Your task to perform on an android device: Go to settings Image 0: 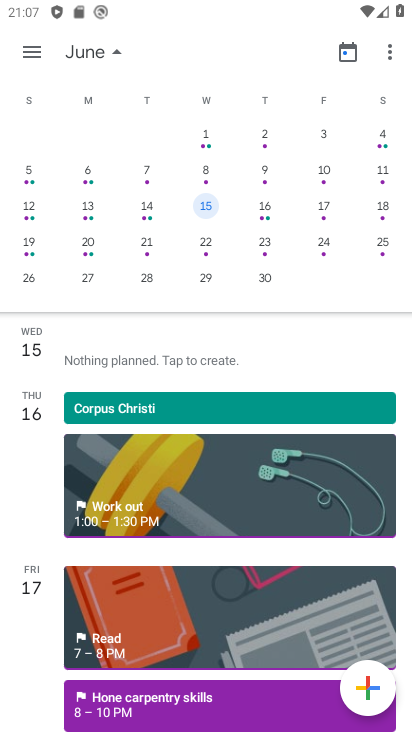
Step 0: press home button
Your task to perform on an android device: Go to settings Image 1: 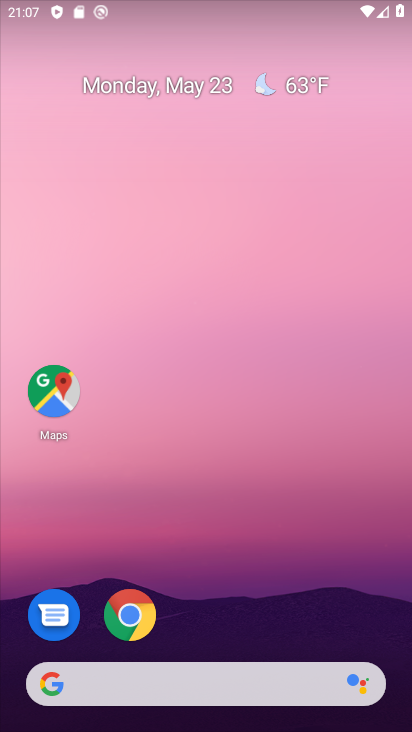
Step 1: drag from (240, 576) to (252, 105)
Your task to perform on an android device: Go to settings Image 2: 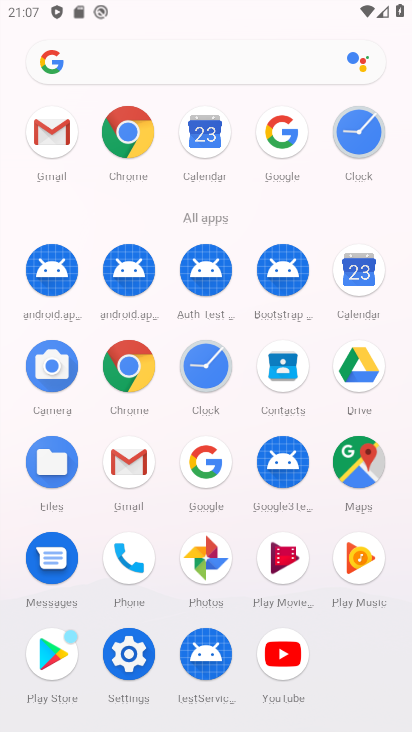
Step 2: click (135, 645)
Your task to perform on an android device: Go to settings Image 3: 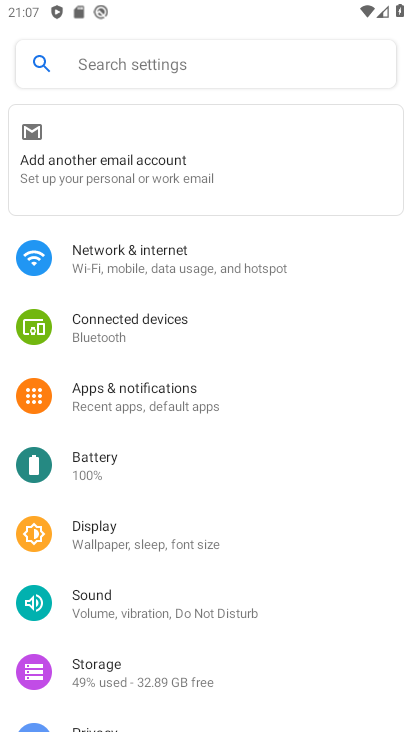
Step 3: task complete